Your task to perform on an android device: Go to ESPN.com Image 0: 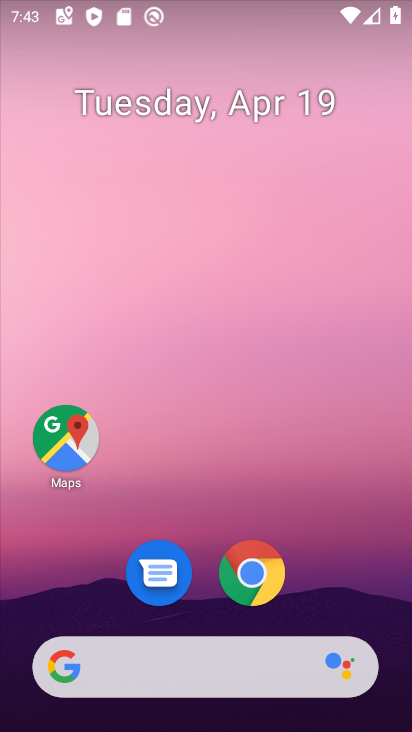
Step 0: drag from (234, 700) to (298, 179)
Your task to perform on an android device: Go to ESPN.com Image 1: 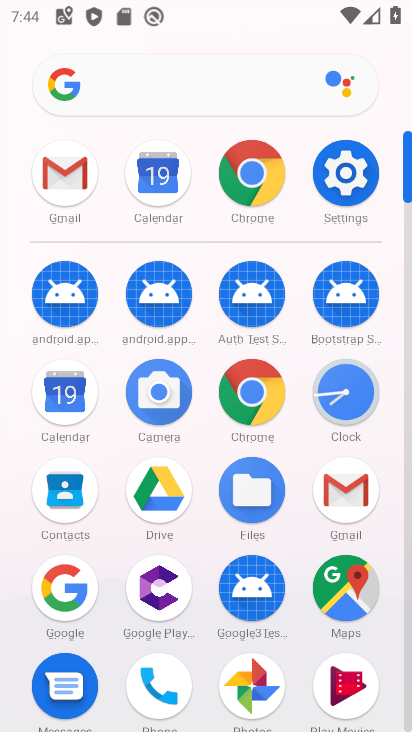
Step 1: click (251, 181)
Your task to perform on an android device: Go to ESPN.com Image 2: 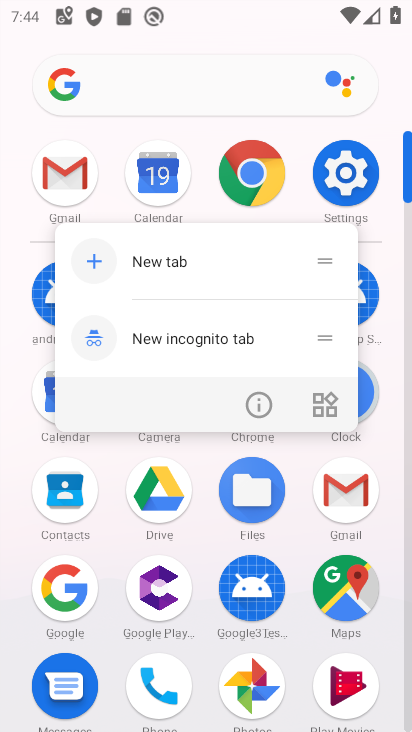
Step 2: click (252, 174)
Your task to perform on an android device: Go to ESPN.com Image 3: 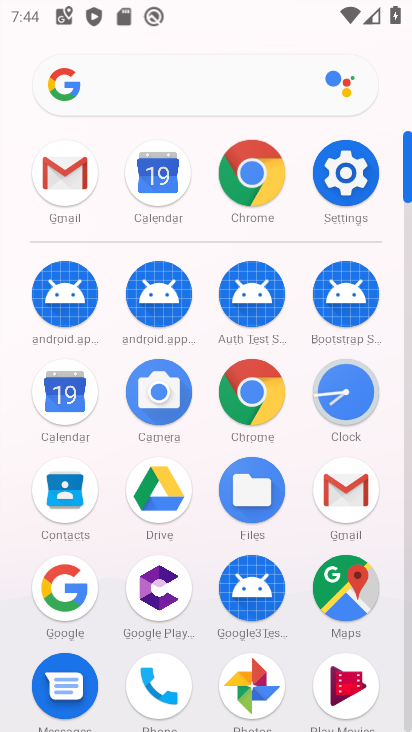
Step 3: click (248, 154)
Your task to perform on an android device: Go to ESPN.com Image 4: 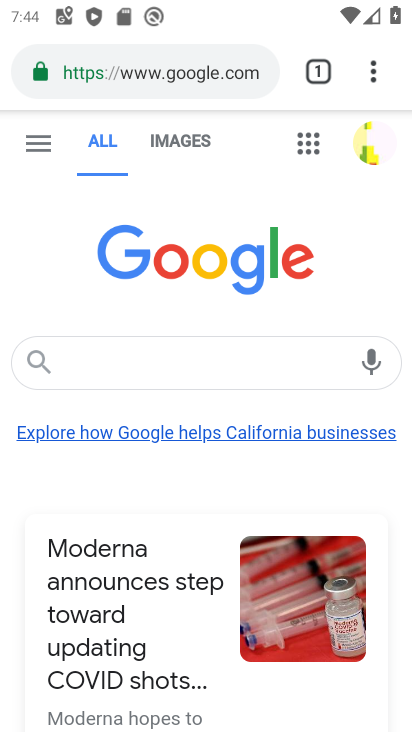
Step 4: click (97, 373)
Your task to perform on an android device: Go to ESPN.com Image 5: 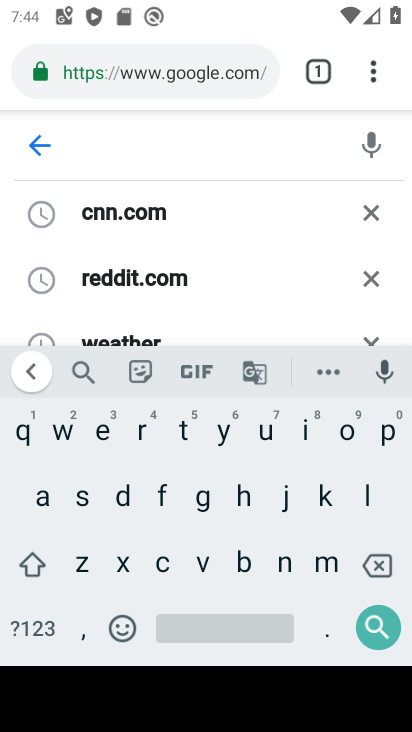
Step 5: click (98, 439)
Your task to perform on an android device: Go to ESPN.com Image 6: 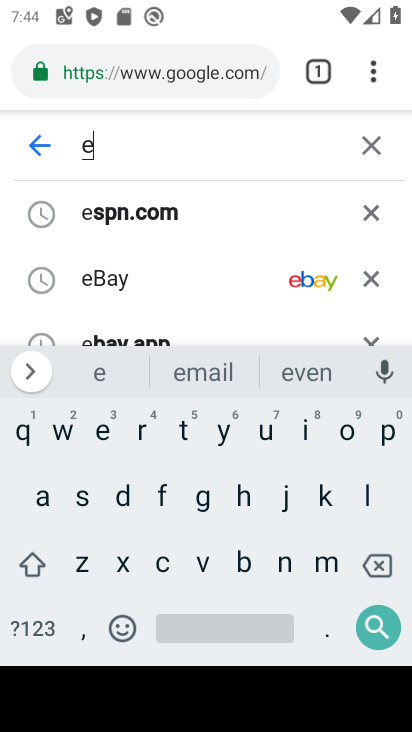
Step 6: click (88, 499)
Your task to perform on an android device: Go to ESPN.com Image 7: 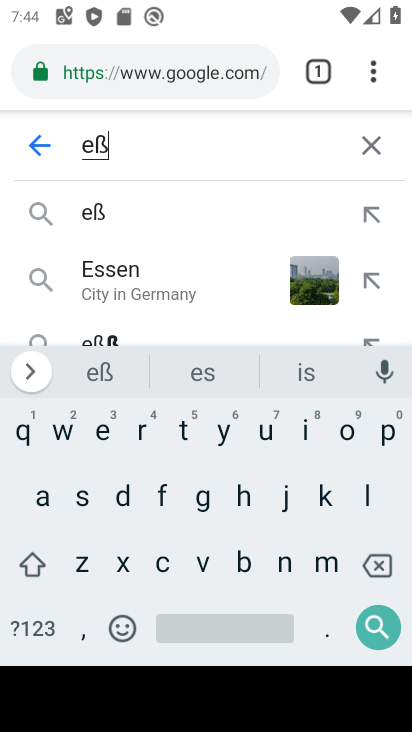
Step 7: click (361, 562)
Your task to perform on an android device: Go to ESPN.com Image 8: 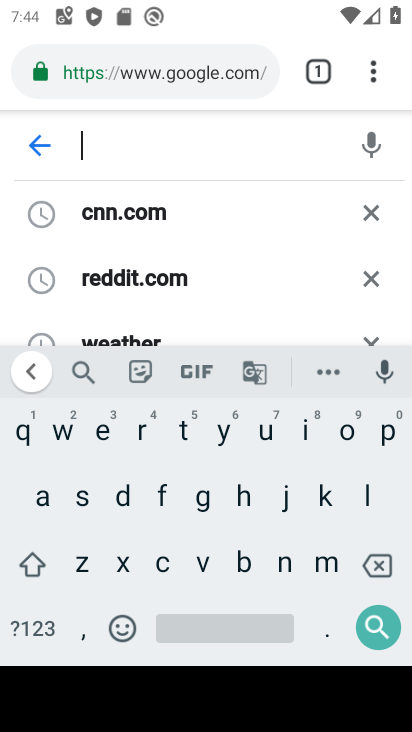
Step 8: click (85, 503)
Your task to perform on an android device: Go to ESPN.com Image 9: 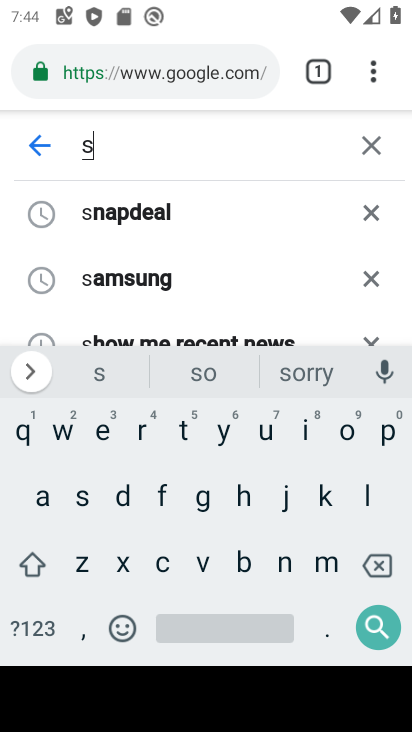
Step 9: click (370, 562)
Your task to perform on an android device: Go to ESPN.com Image 10: 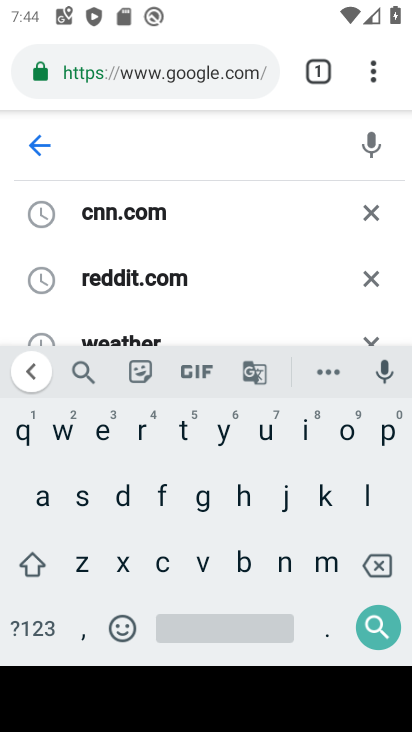
Step 10: click (370, 562)
Your task to perform on an android device: Go to ESPN.com Image 11: 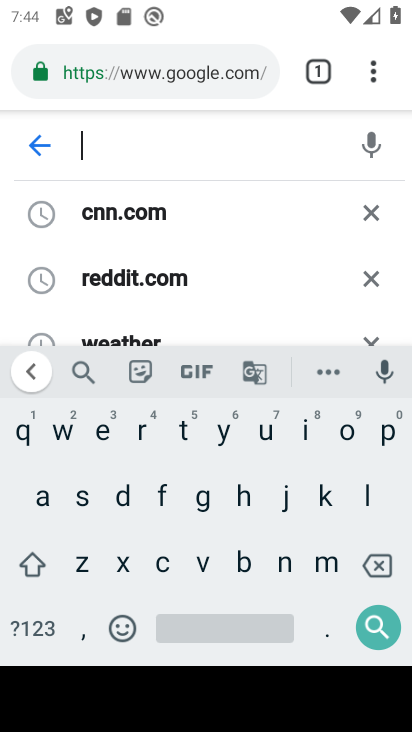
Step 11: click (105, 434)
Your task to perform on an android device: Go to ESPN.com Image 12: 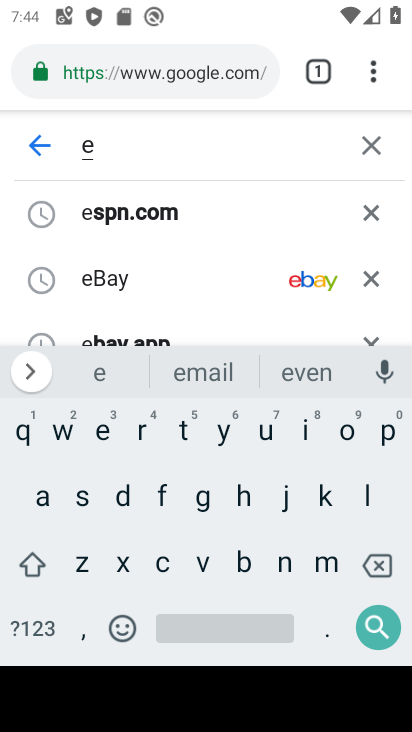
Step 12: click (139, 213)
Your task to perform on an android device: Go to ESPN.com Image 13: 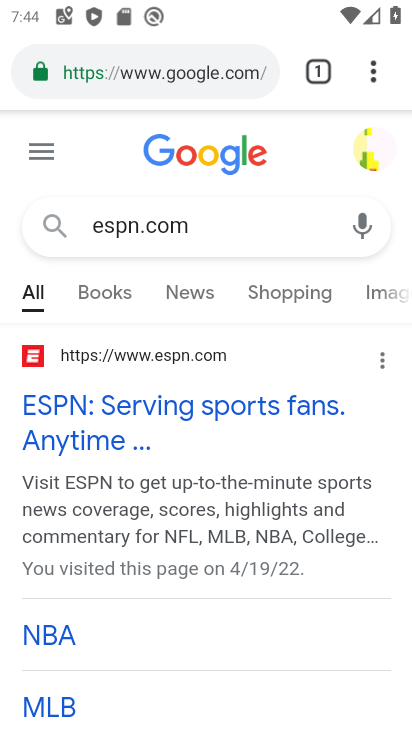
Step 13: click (75, 384)
Your task to perform on an android device: Go to ESPN.com Image 14: 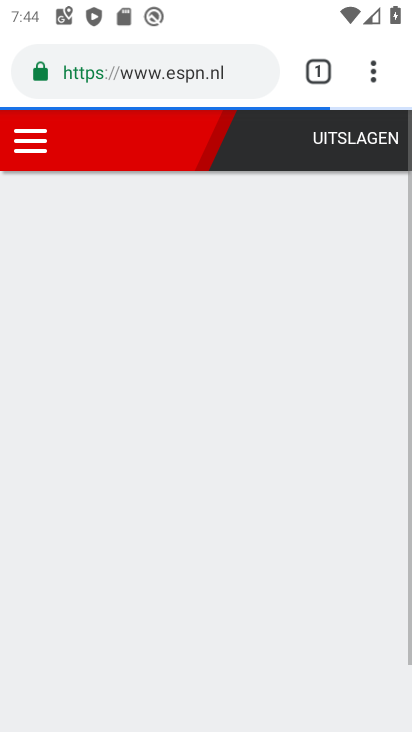
Step 14: task complete